Your task to perform on an android device: empty trash in the gmail app Image 0: 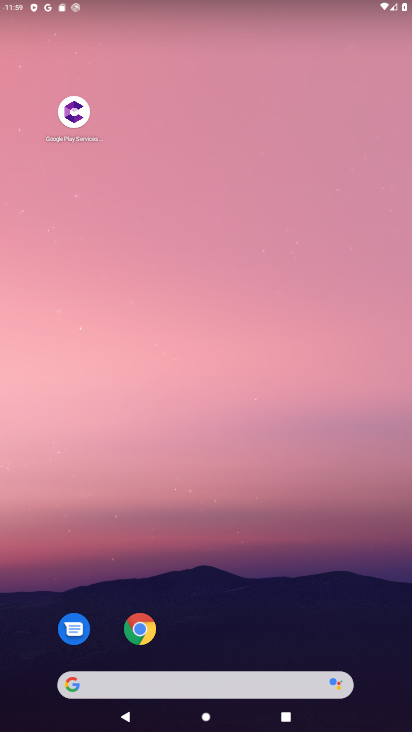
Step 0: drag from (201, 614) to (187, 159)
Your task to perform on an android device: empty trash in the gmail app Image 1: 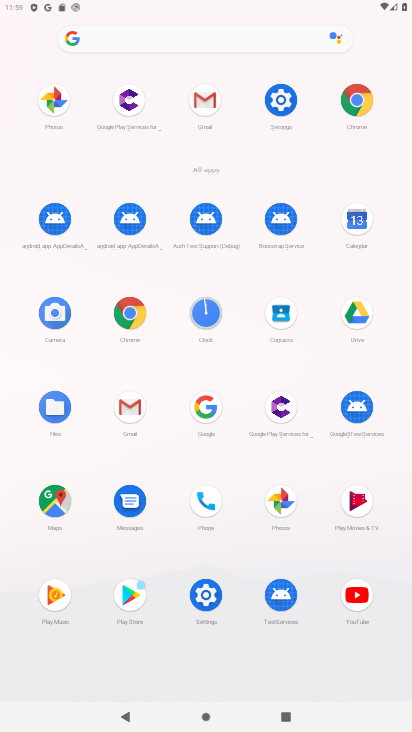
Step 1: click (206, 120)
Your task to perform on an android device: empty trash in the gmail app Image 2: 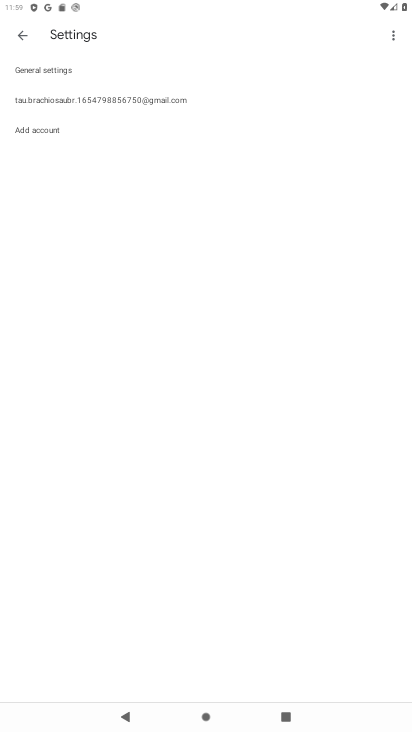
Step 2: click (28, 35)
Your task to perform on an android device: empty trash in the gmail app Image 3: 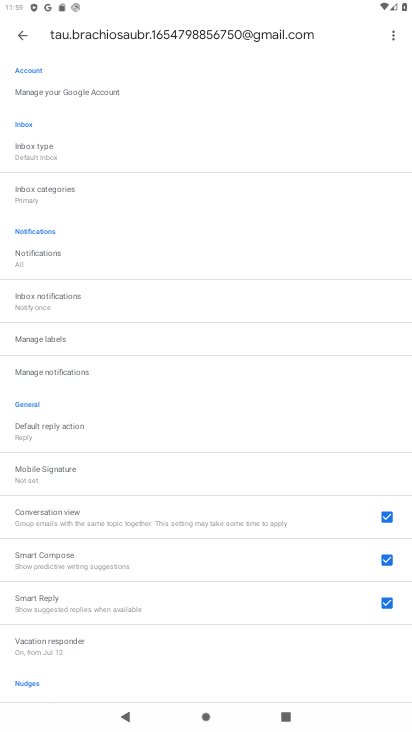
Step 3: click (23, 35)
Your task to perform on an android device: empty trash in the gmail app Image 4: 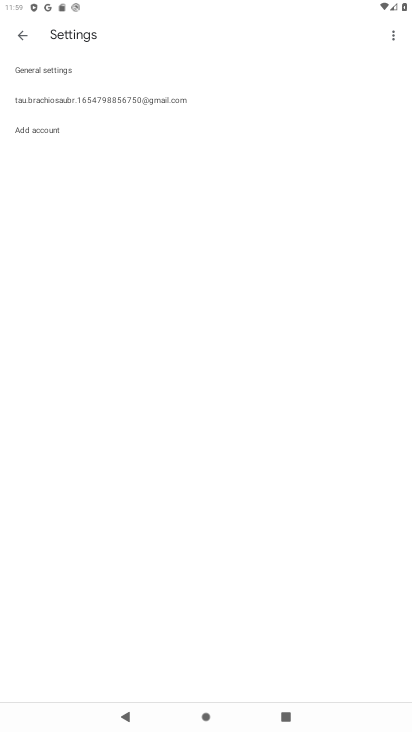
Step 4: click (23, 35)
Your task to perform on an android device: empty trash in the gmail app Image 5: 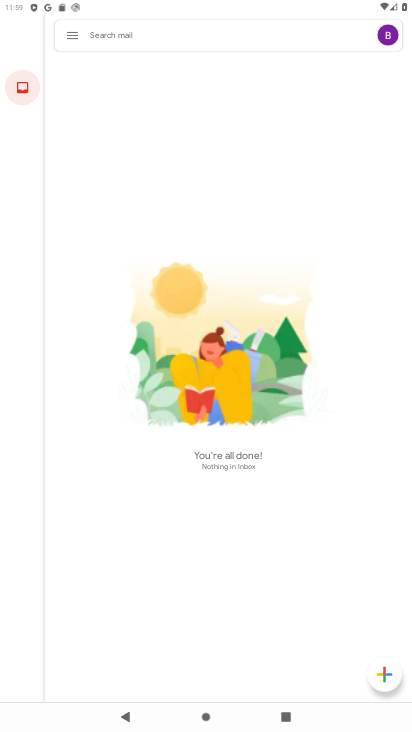
Step 5: click (70, 37)
Your task to perform on an android device: empty trash in the gmail app Image 6: 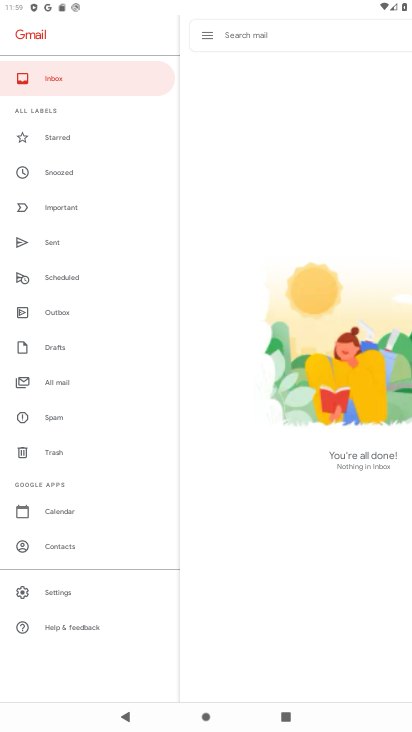
Step 6: click (62, 445)
Your task to perform on an android device: empty trash in the gmail app Image 7: 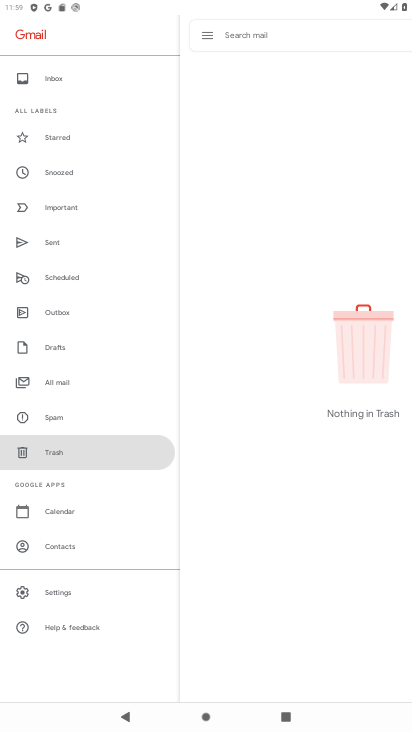
Step 7: task complete